Your task to perform on an android device: Open Reddit.com Image 0: 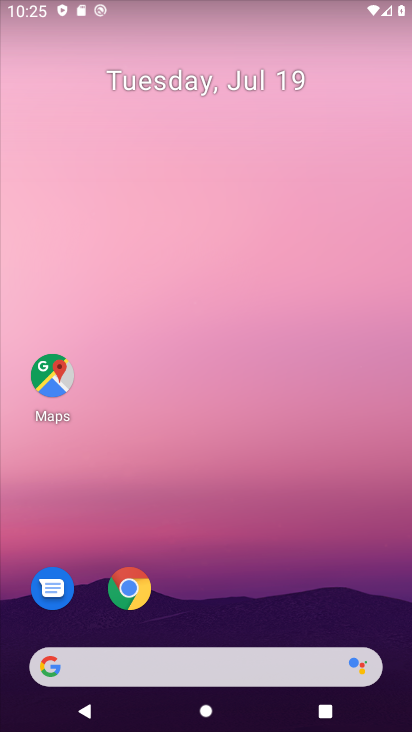
Step 0: drag from (392, 622) to (214, 54)
Your task to perform on an android device: Open Reddit.com Image 1: 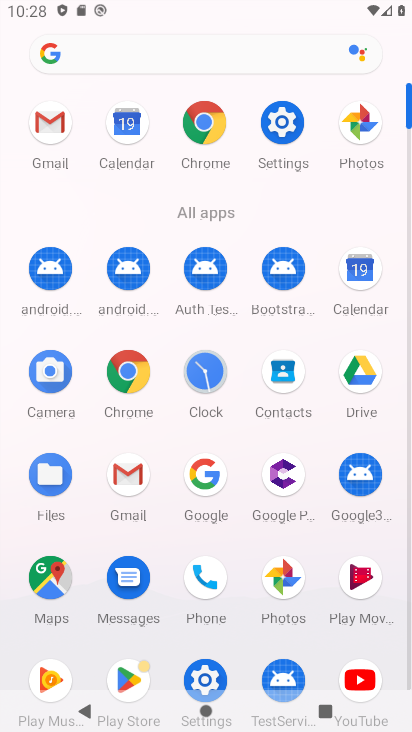
Step 1: click (187, 488)
Your task to perform on an android device: Open Reddit.com Image 2: 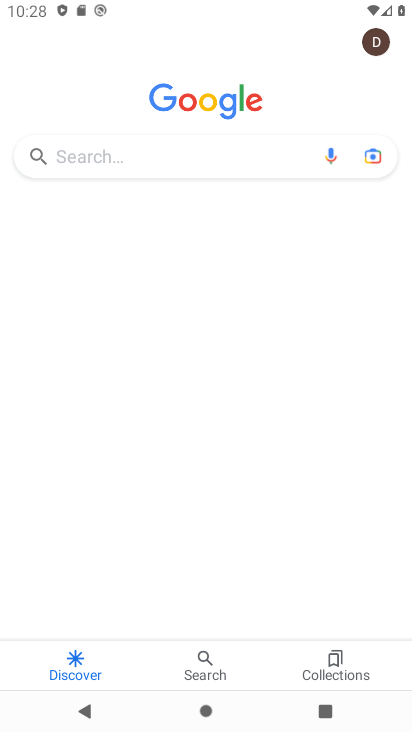
Step 2: click (165, 153)
Your task to perform on an android device: Open Reddit.com Image 3: 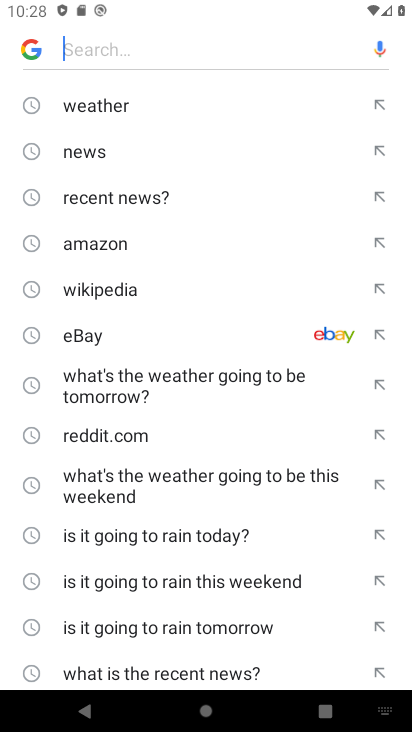
Step 3: type "Reddit.com"
Your task to perform on an android device: Open Reddit.com Image 4: 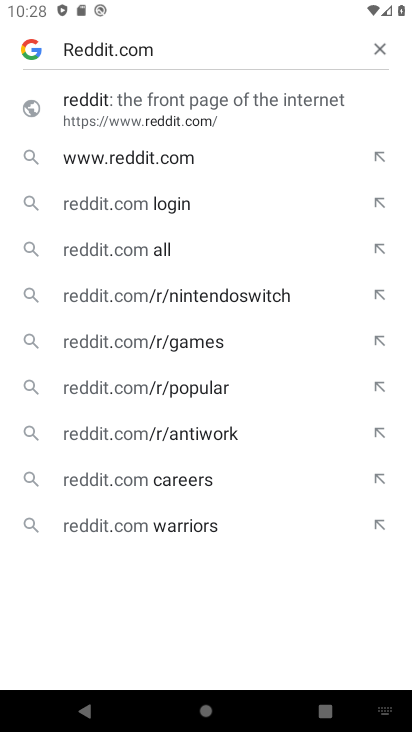
Step 4: click (137, 101)
Your task to perform on an android device: Open Reddit.com Image 5: 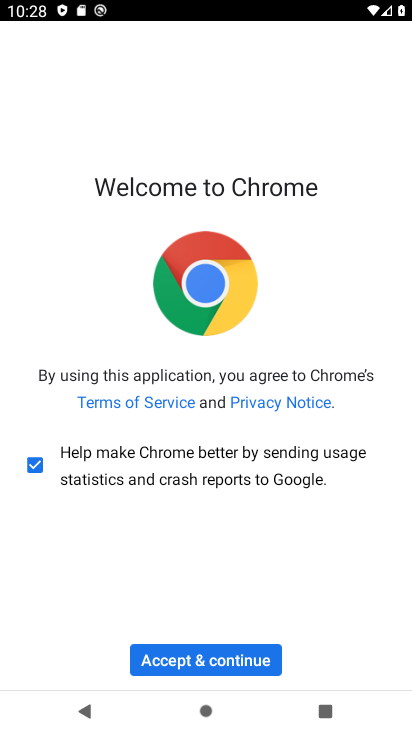
Step 5: click (225, 662)
Your task to perform on an android device: Open Reddit.com Image 6: 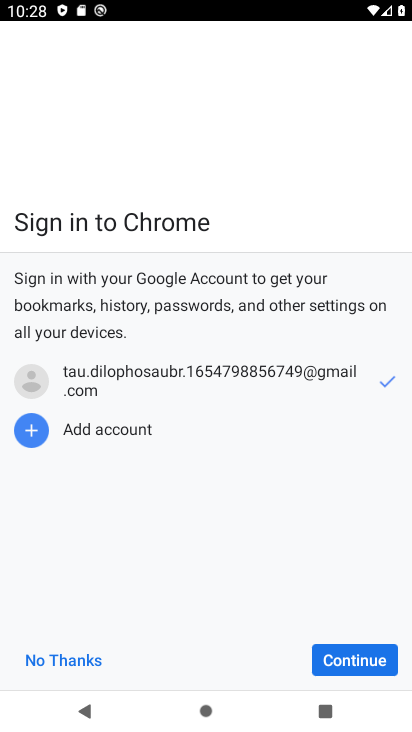
Step 6: click (370, 669)
Your task to perform on an android device: Open Reddit.com Image 7: 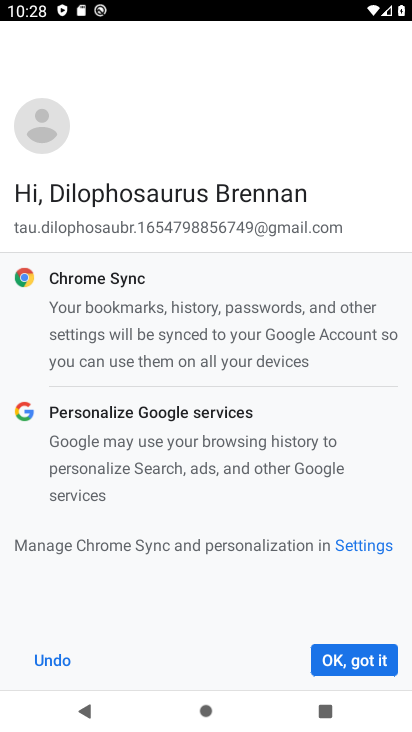
Step 7: click (370, 669)
Your task to perform on an android device: Open Reddit.com Image 8: 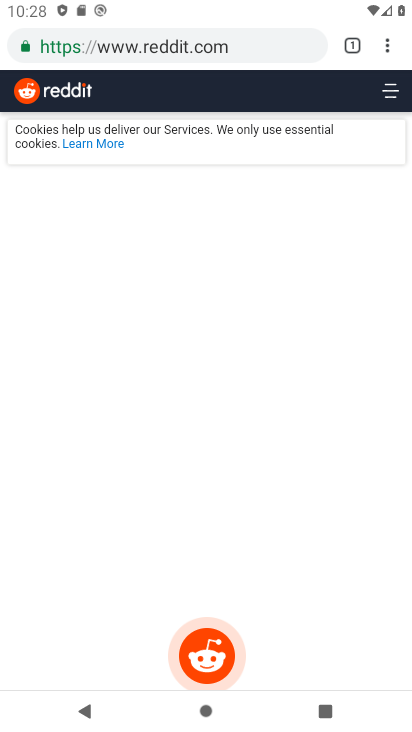
Step 8: task complete